Your task to perform on an android device: turn off location Image 0: 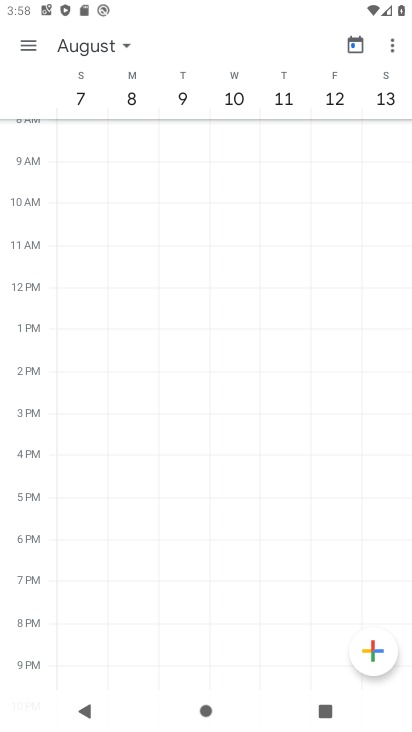
Step 0: press home button
Your task to perform on an android device: turn off location Image 1: 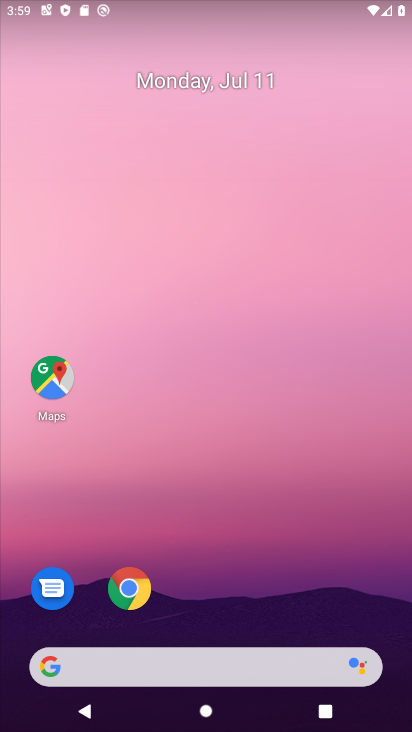
Step 1: drag from (319, 557) to (248, 81)
Your task to perform on an android device: turn off location Image 2: 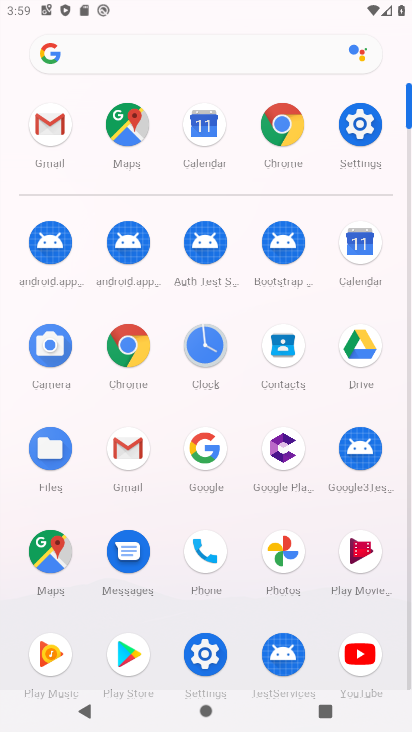
Step 2: click (362, 132)
Your task to perform on an android device: turn off location Image 3: 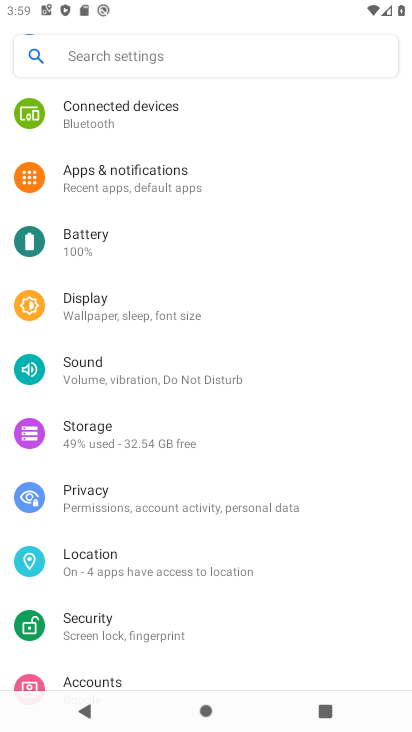
Step 3: click (132, 561)
Your task to perform on an android device: turn off location Image 4: 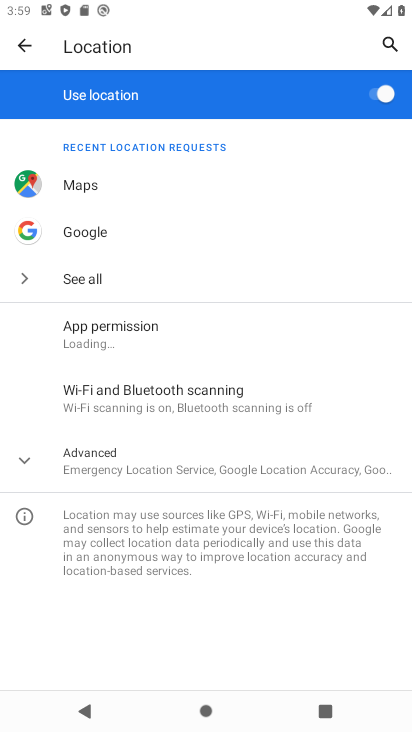
Step 4: click (380, 87)
Your task to perform on an android device: turn off location Image 5: 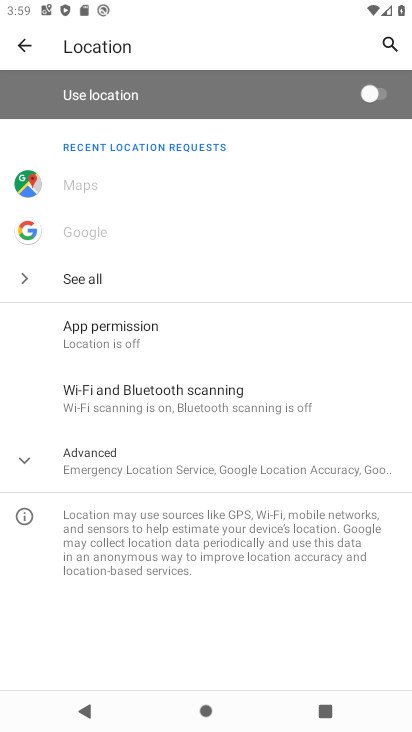
Step 5: task complete